Your task to perform on an android device: change the clock style Image 0: 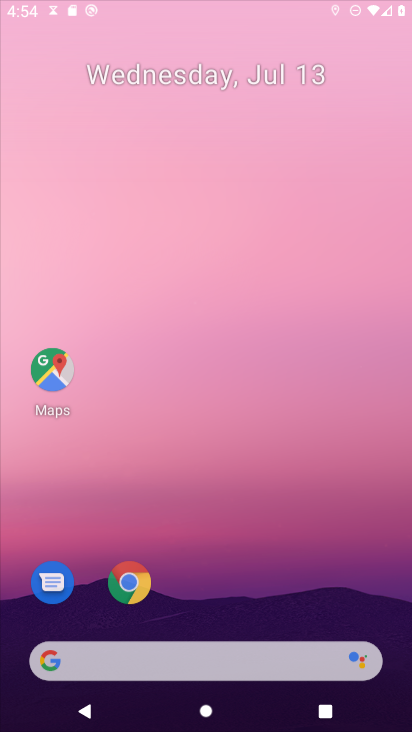
Step 0: click (208, 133)
Your task to perform on an android device: change the clock style Image 1: 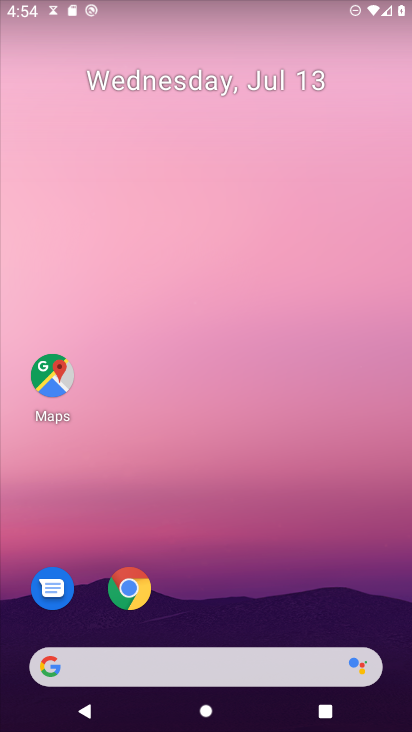
Step 1: drag from (280, 409) to (280, 215)
Your task to perform on an android device: change the clock style Image 2: 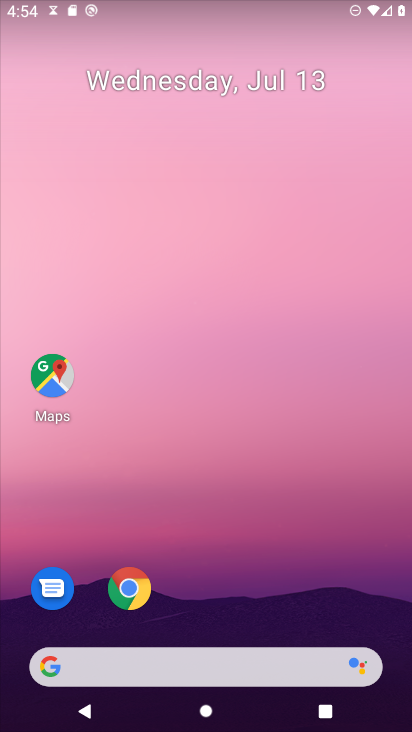
Step 2: drag from (257, 539) to (235, 153)
Your task to perform on an android device: change the clock style Image 3: 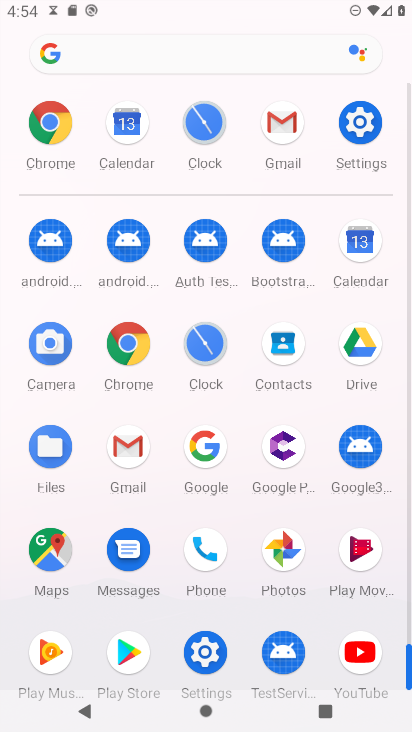
Step 3: click (211, 339)
Your task to perform on an android device: change the clock style Image 4: 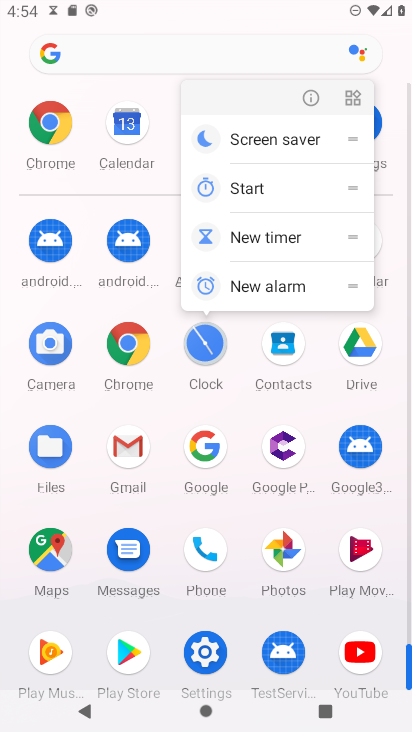
Step 4: click (203, 346)
Your task to perform on an android device: change the clock style Image 5: 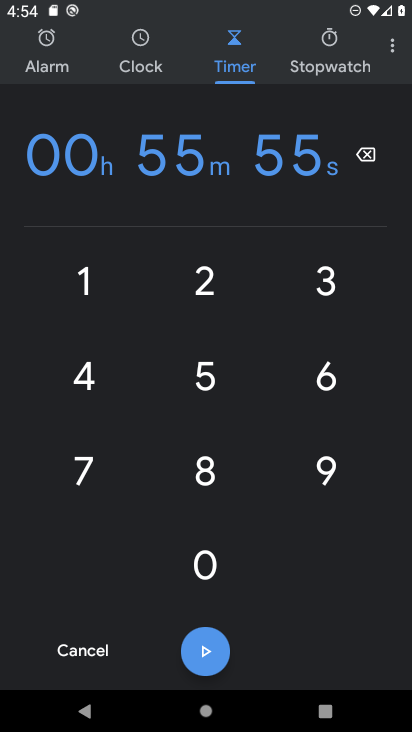
Step 5: click (387, 42)
Your task to perform on an android device: change the clock style Image 6: 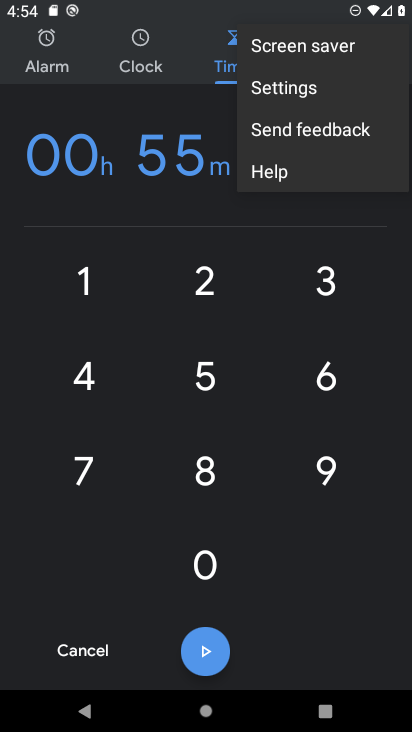
Step 6: click (299, 78)
Your task to perform on an android device: change the clock style Image 7: 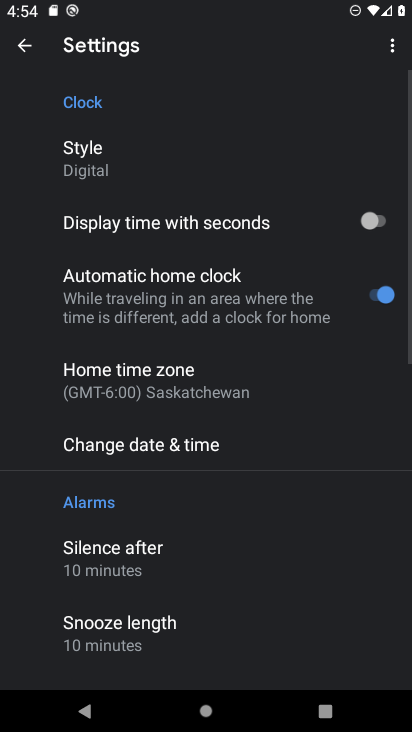
Step 7: click (95, 159)
Your task to perform on an android device: change the clock style Image 8: 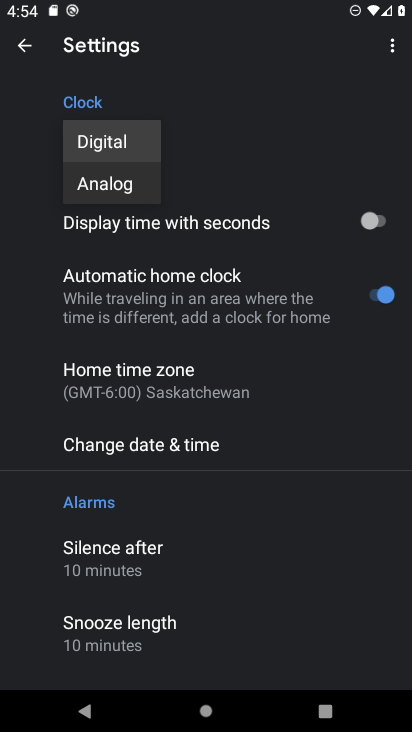
Step 8: click (104, 176)
Your task to perform on an android device: change the clock style Image 9: 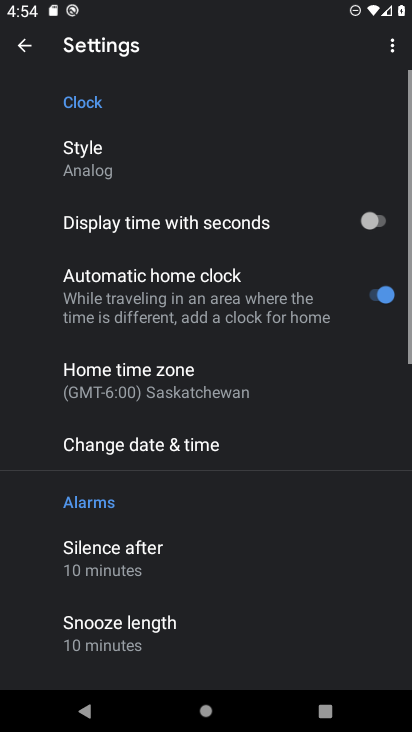
Step 9: task complete